Your task to perform on an android device: Open Google Maps Image 0: 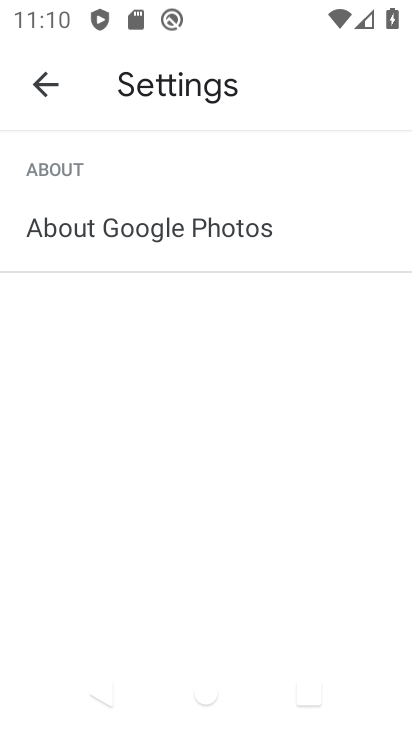
Step 0: press home button
Your task to perform on an android device: Open Google Maps Image 1: 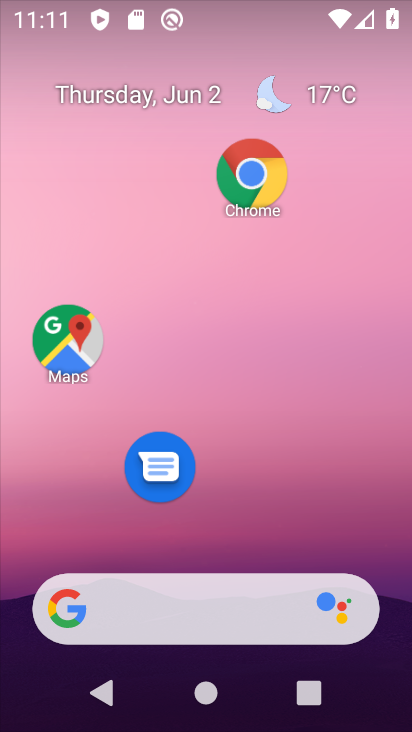
Step 1: click (89, 344)
Your task to perform on an android device: Open Google Maps Image 2: 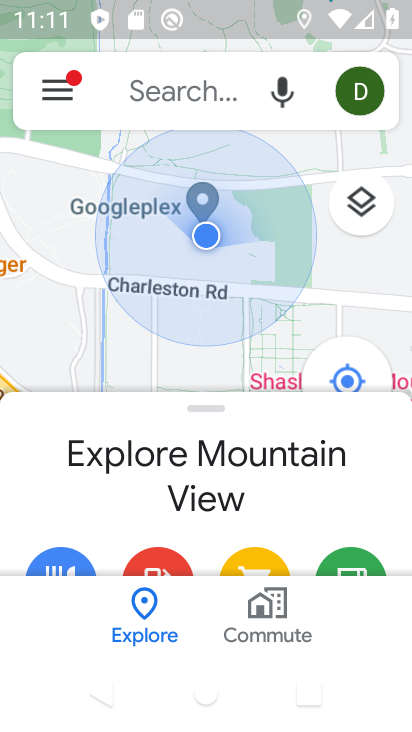
Step 2: task complete